Your task to perform on an android device: Open my contact list Image 0: 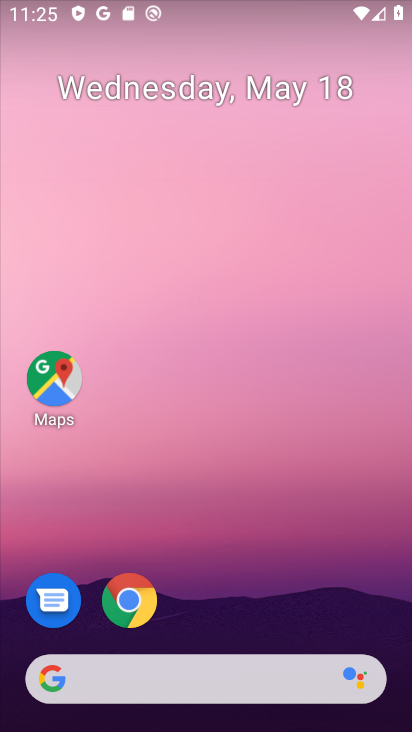
Step 0: drag from (245, 611) to (350, 24)
Your task to perform on an android device: Open my contact list Image 1: 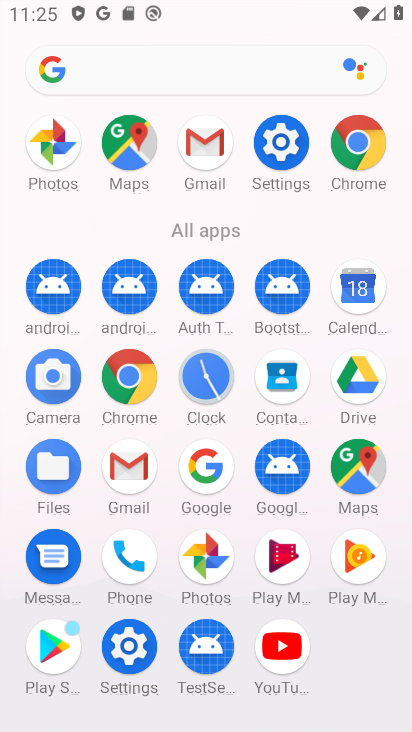
Step 1: click (281, 394)
Your task to perform on an android device: Open my contact list Image 2: 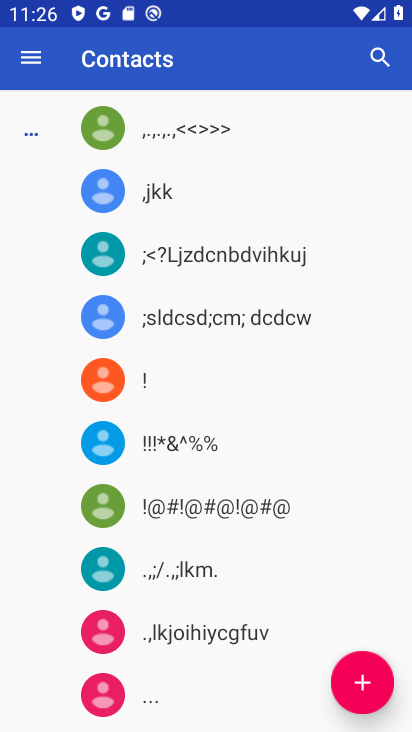
Step 2: task complete